Your task to perform on an android device: Open network settings Image 0: 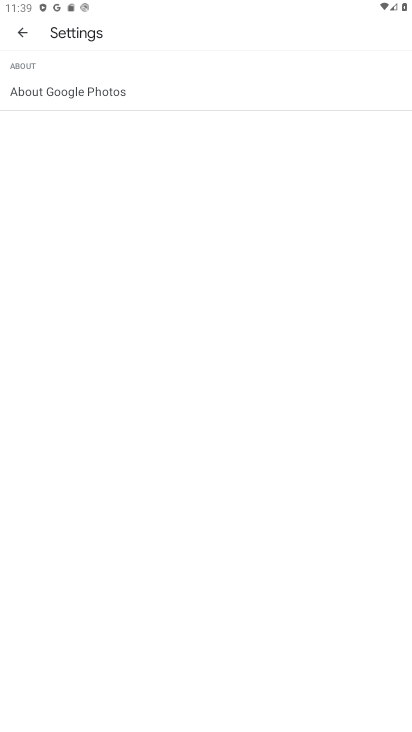
Step 0: press home button
Your task to perform on an android device: Open network settings Image 1: 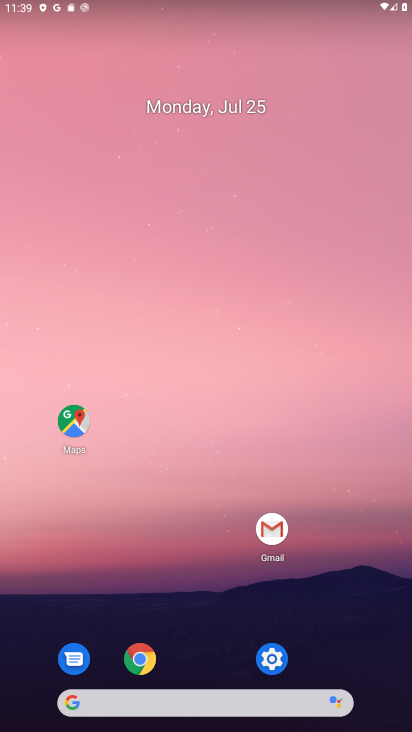
Step 1: click (279, 660)
Your task to perform on an android device: Open network settings Image 2: 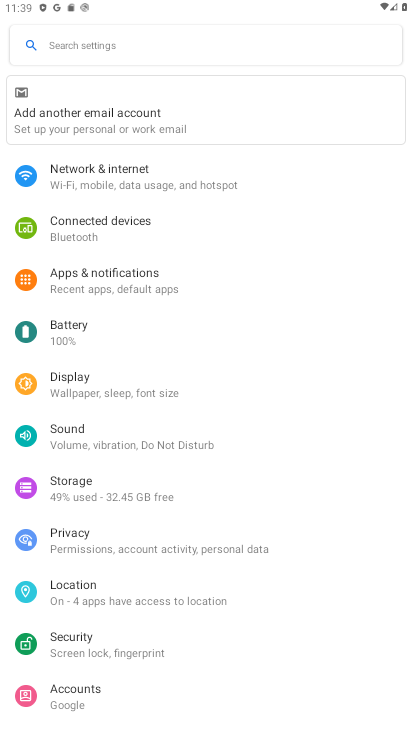
Step 2: click (139, 166)
Your task to perform on an android device: Open network settings Image 3: 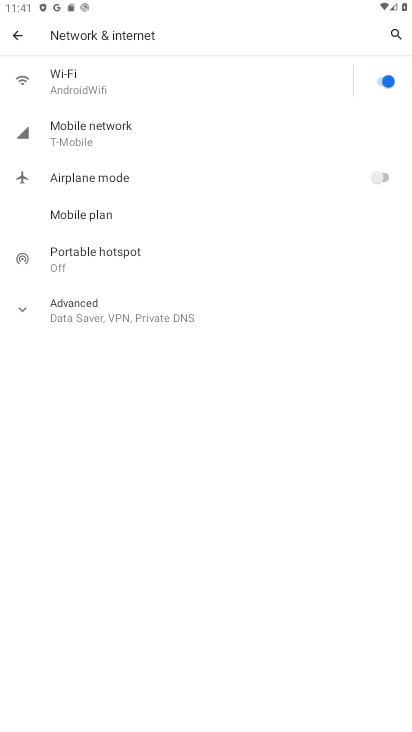
Step 3: task complete